Your task to perform on an android device: Open accessibility settings Image 0: 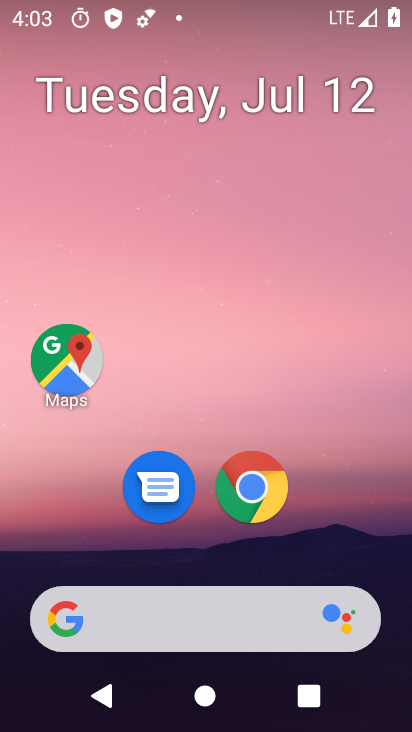
Step 0: drag from (259, 561) to (256, 1)
Your task to perform on an android device: Open accessibility settings Image 1: 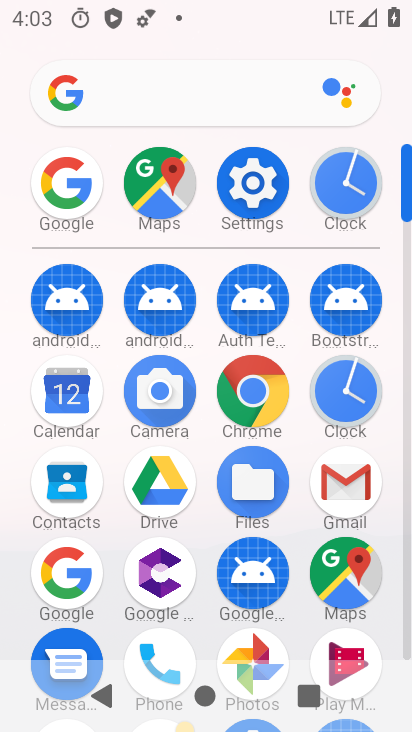
Step 1: click (260, 197)
Your task to perform on an android device: Open accessibility settings Image 2: 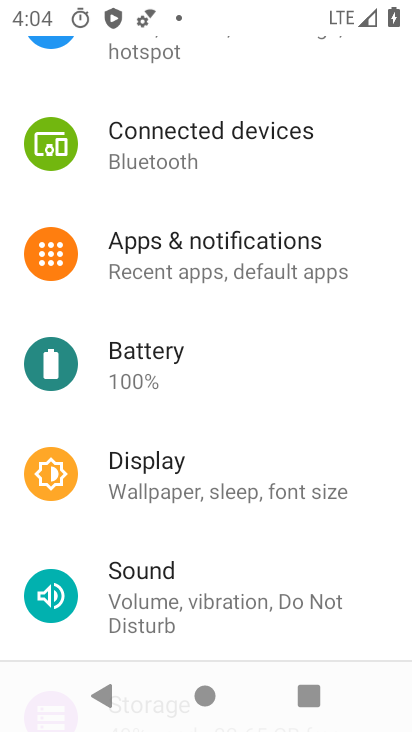
Step 2: drag from (199, 446) to (211, 263)
Your task to perform on an android device: Open accessibility settings Image 3: 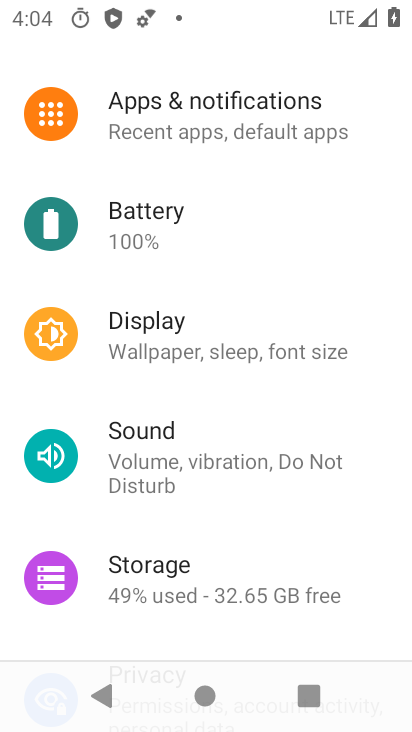
Step 3: drag from (197, 439) to (239, 95)
Your task to perform on an android device: Open accessibility settings Image 4: 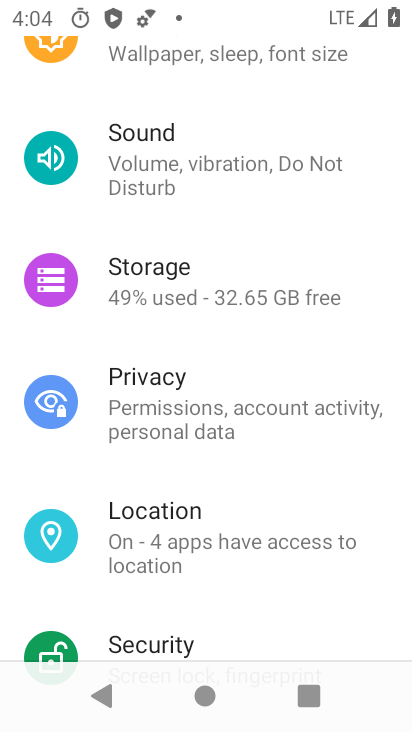
Step 4: drag from (183, 472) to (217, 17)
Your task to perform on an android device: Open accessibility settings Image 5: 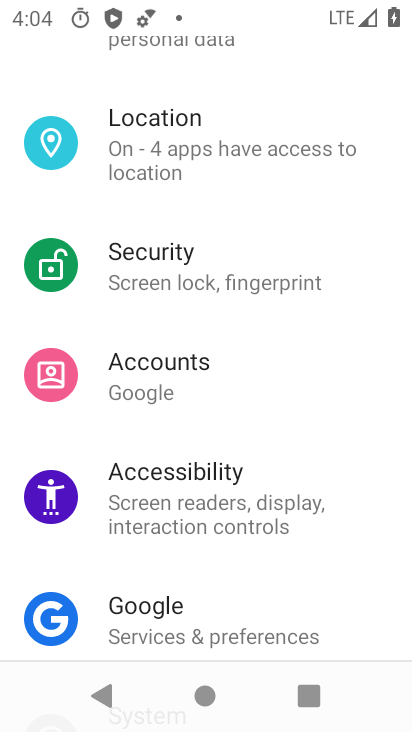
Step 5: click (225, 531)
Your task to perform on an android device: Open accessibility settings Image 6: 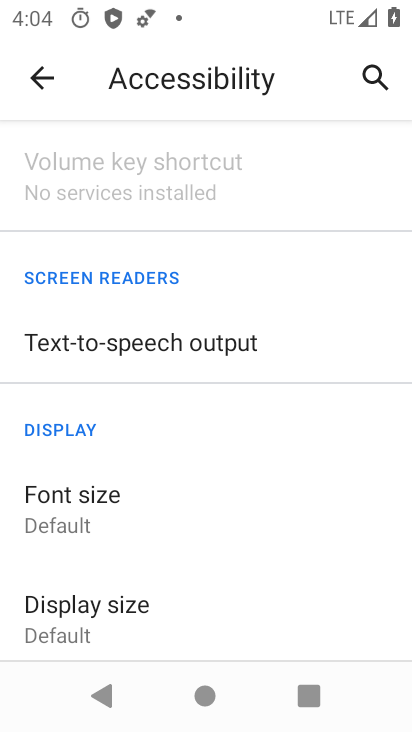
Step 6: task complete